Your task to perform on an android device: Open ESPN.com Image 0: 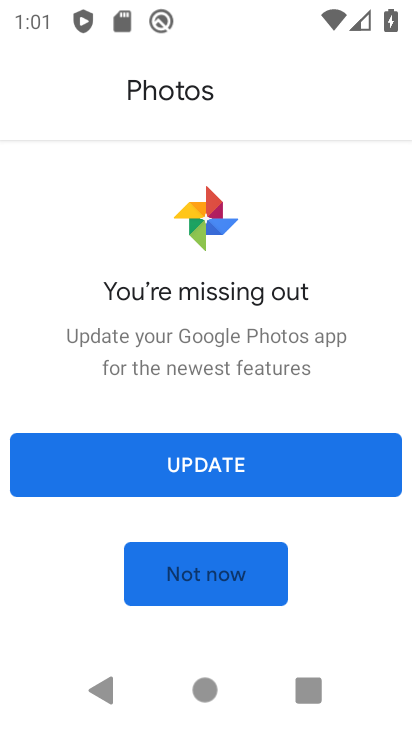
Step 0: press home button
Your task to perform on an android device: Open ESPN.com Image 1: 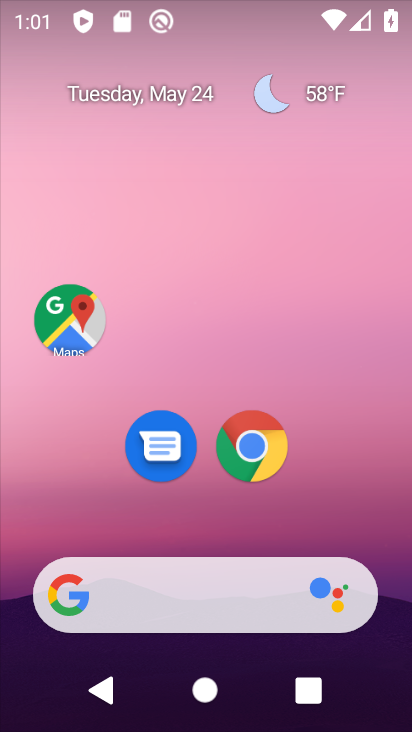
Step 1: click (264, 461)
Your task to perform on an android device: Open ESPN.com Image 2: 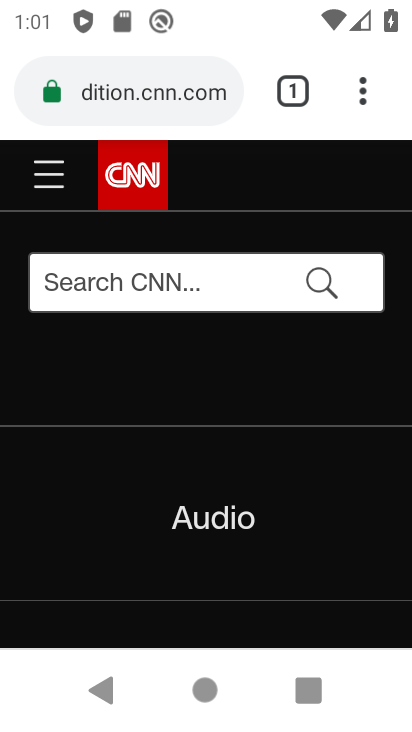
Step 2: click (179, 95)
Your task to perform on an android device: Open ESPN.com Image 3: 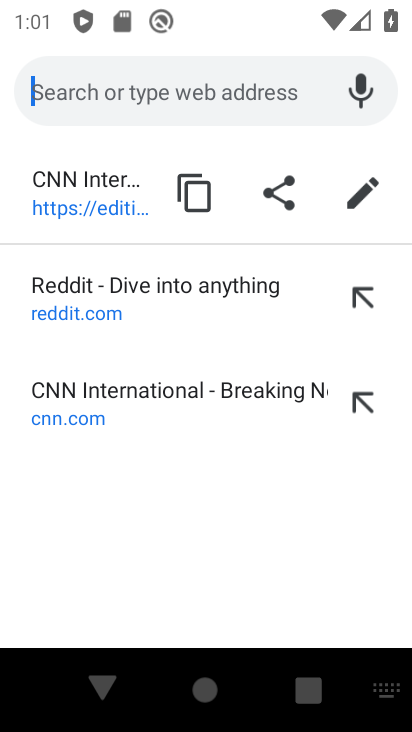
Step 3: type "espn"
Your task to perform on an android device: Open ESPN.com Image 4: 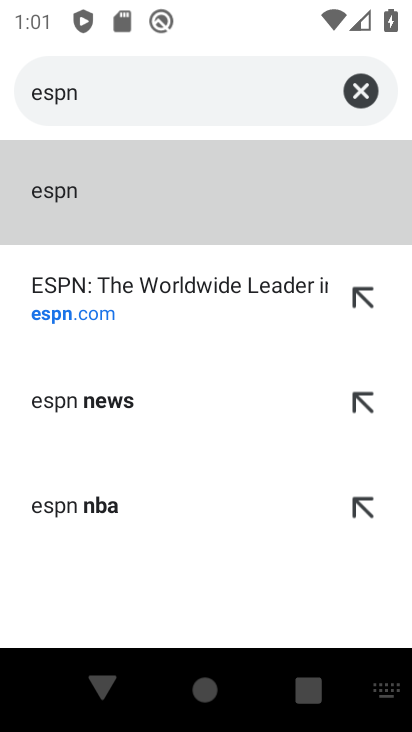
Step 4: click (260, 329)
Your task to perform on an android device: Open ESPN.com Image 5: 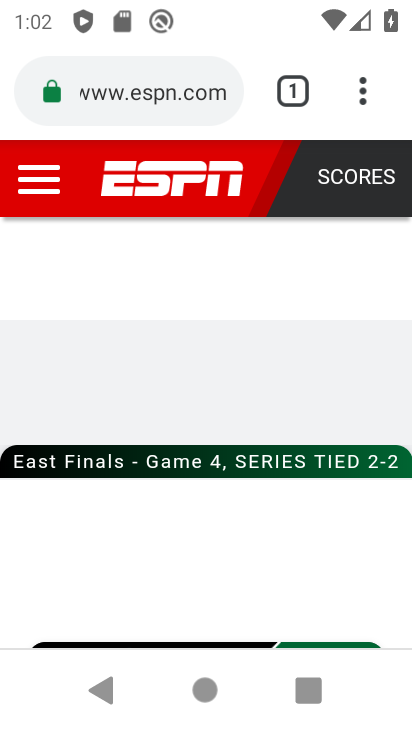
Step 5: task complete